Your task to perform on an android device: Show me the alarms in the clock app Image 0: 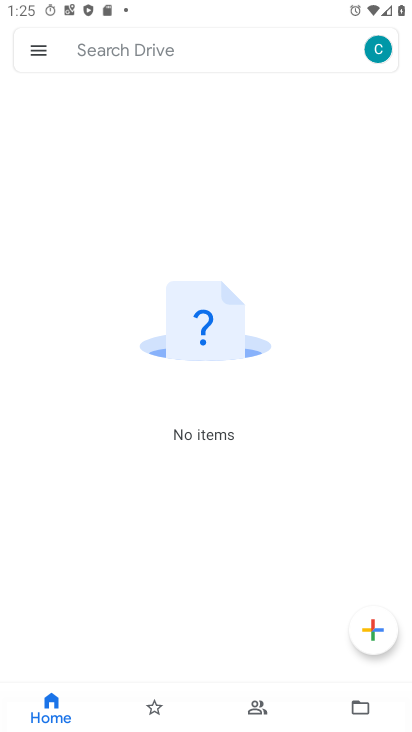
Step 0: press home button
Your task to perform on an android device: Show me the alarms in the clock app Image 1: 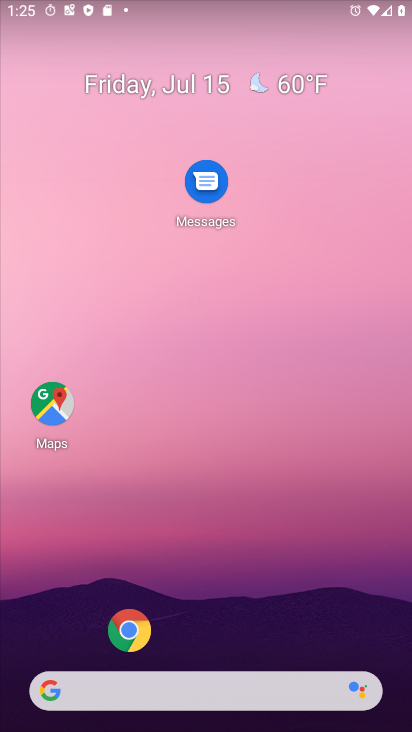
Step 1: drag from (35, 701) to (391, 5)
Your task to perform on an android device: Show me the alarms in the clock app Image 2: 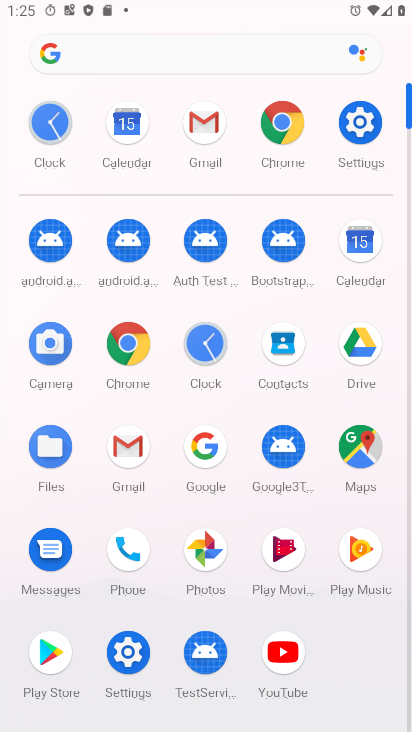
Step 2: click (205, 331)
Your task to perform on an android device: Show me the alarms in the clock app Image 3: 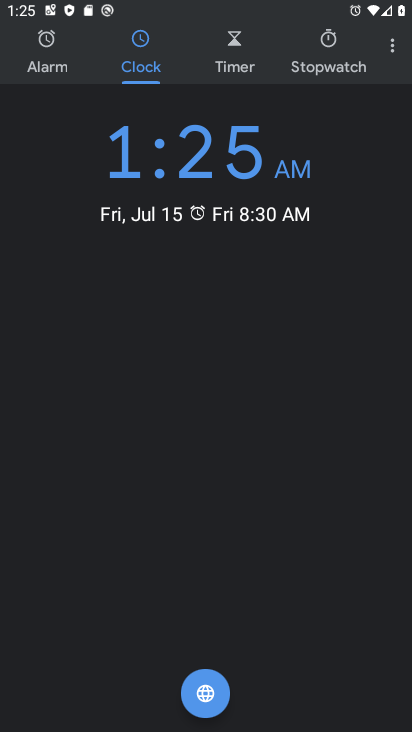
Step 3: click (51, 62)
Your task to perform on an android device: Show me the alarms in the clock app Image 4: 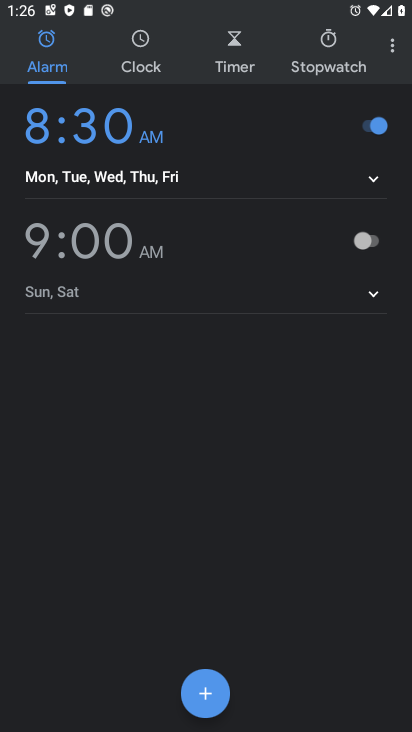
Step 4: task complete